Your task to perform on an android device: empty trash in google photos Image 0: 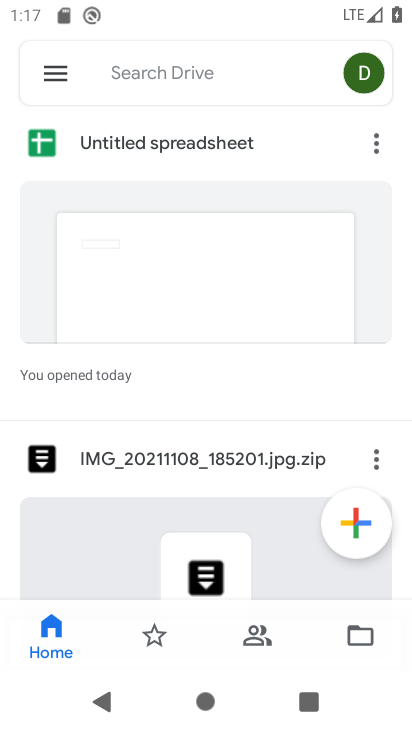
Step 0: press home button
Your task to perform on an android device: empty trash in google photos Image 1: 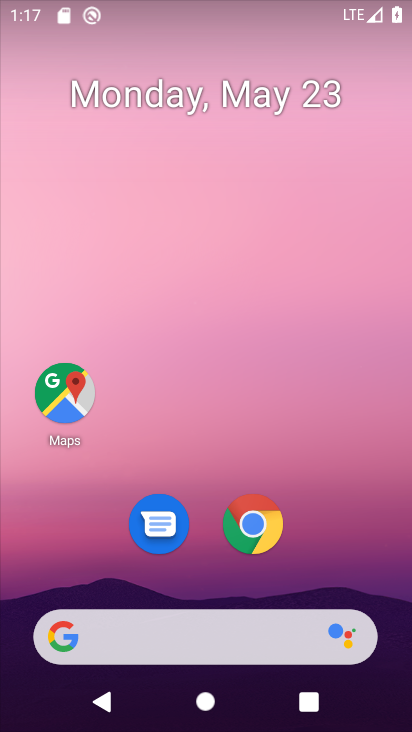
Step 1: drag from (295, 525) to (221, 45)
Your task to perform on an android device: empty trash in google photos Image 2: 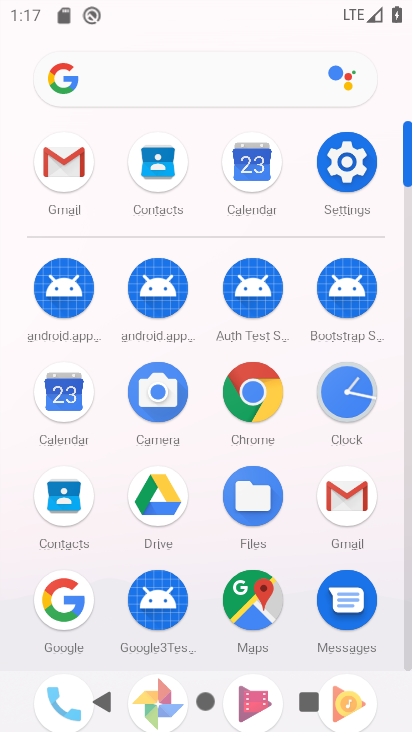
Step 2: drag from (185, 560) to (201, 429)
Your task to perform on an android device: empty trash in google photos Image 3: 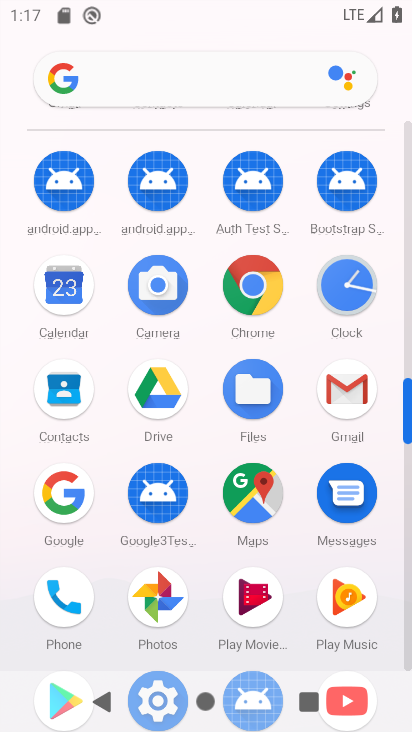
Step 3: click (168, 580)
Your task to perform on an android device: empty trash in google photos Image 4: 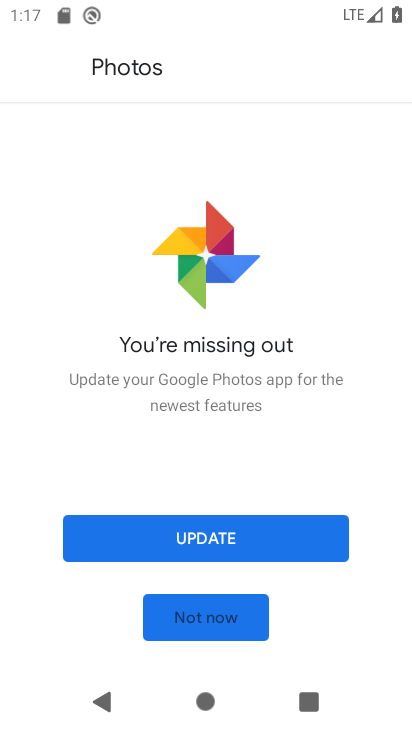
Step 4: click (181, 613)
Your task to perform on an android device: empty trash in google photos Image 5: 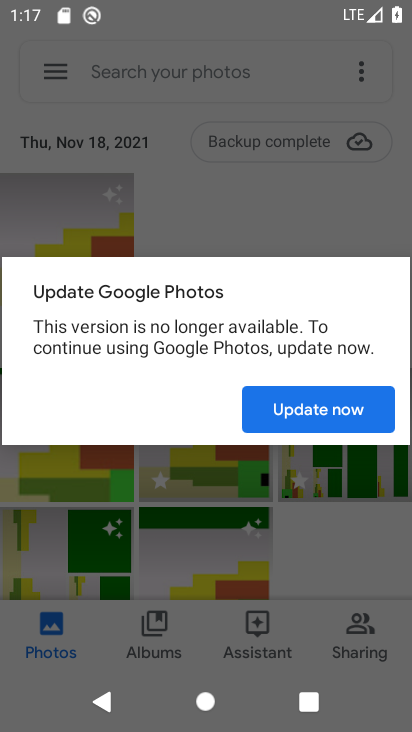
Step 5: click (324, 395)
Your task to perform on an android device: empty trash in google photos Image 6: 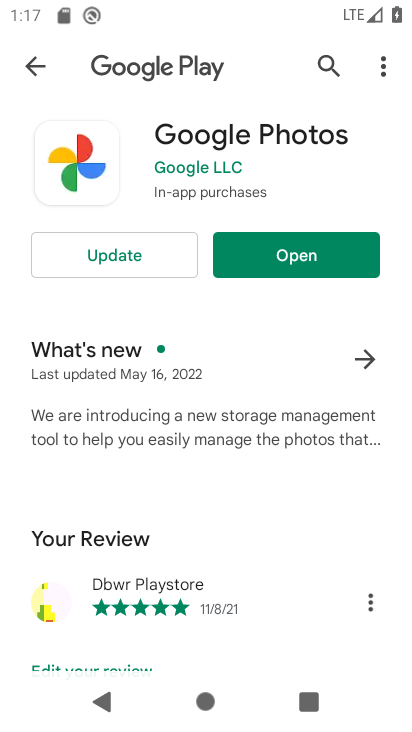
Step 6: click (281, 251)
Your task to perform on an android device: empty trash in google photos Image 7: 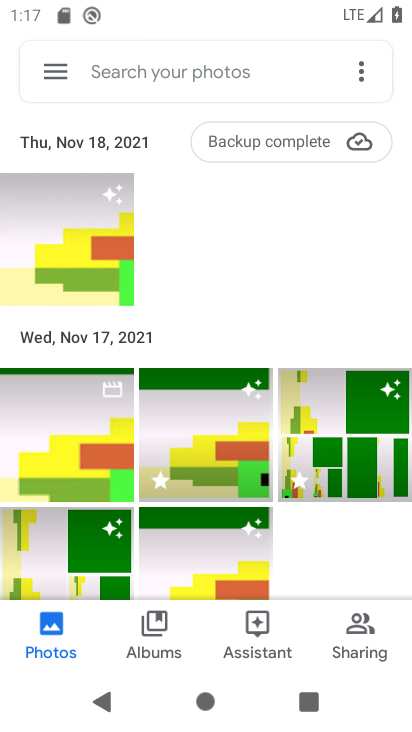
Step 7: click (54, 66)
Your task to perform on an android device: empty trash in google photos Image 8: 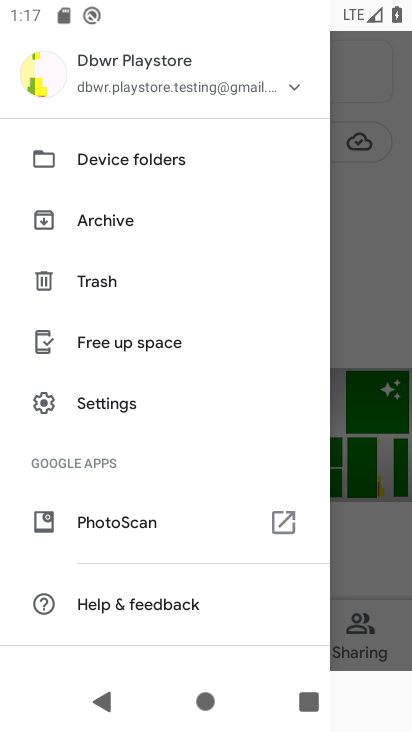
Step 8: click (69, 268)
Your task to perform on an android device: empty trash in google photos Image 9: 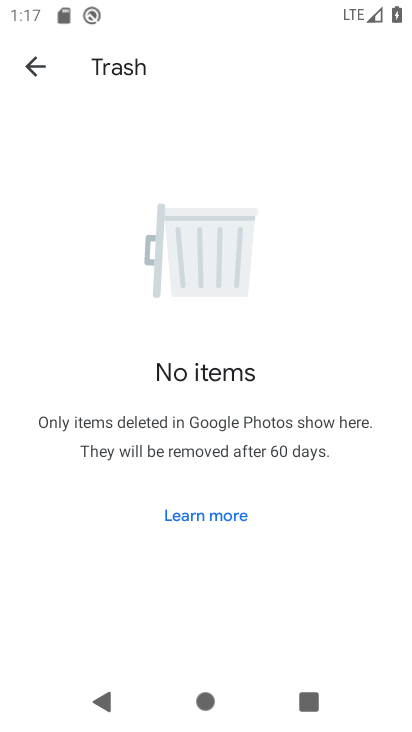
Step 9: task complete